Your task to perform on an android device: turn on improve location accuracy Image 0: 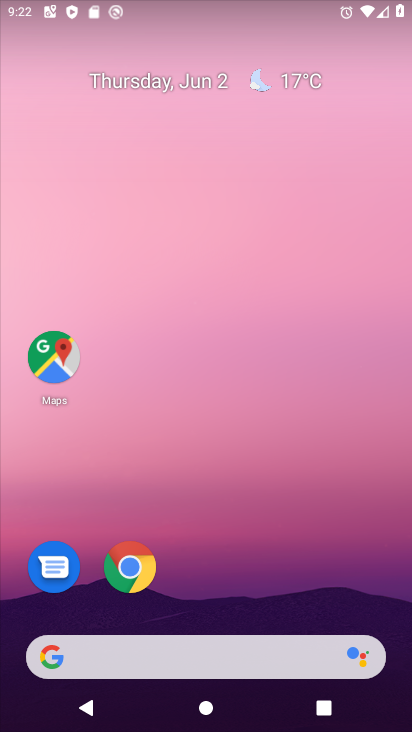
Step 0: drag from (217, 555) to (265, 44)
Your task to perform on an android device: turn on improve location accuracy Image 1: 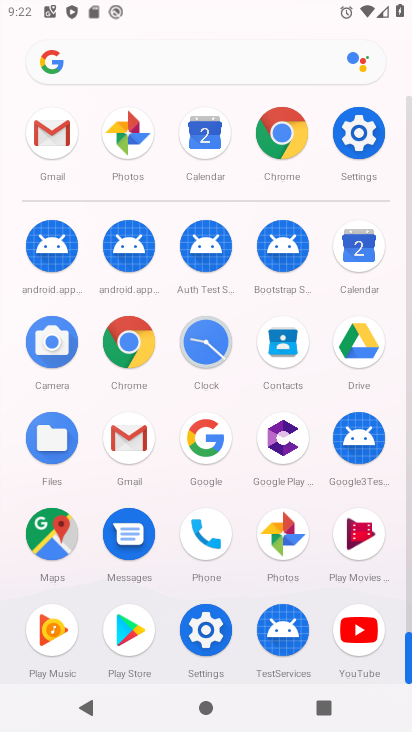
Step 1: click (203, 623)
Your task to perform on an android device: turn on improve location accuracy Image 2: 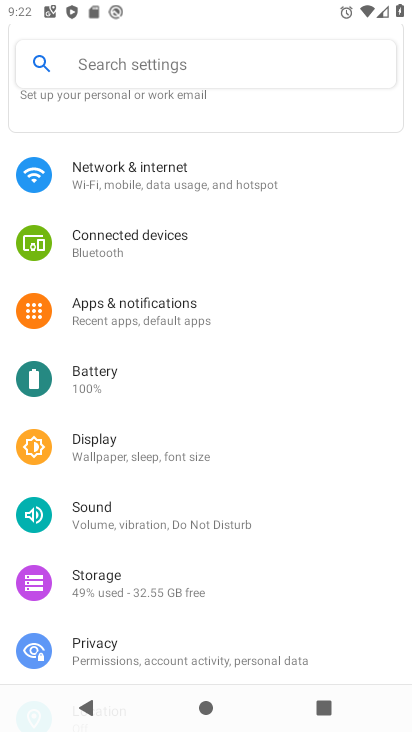
Step 2: drag from (140, 629) to (163, 382)
Your task to perform on an android device: turn on improve location accuracy Image 3: 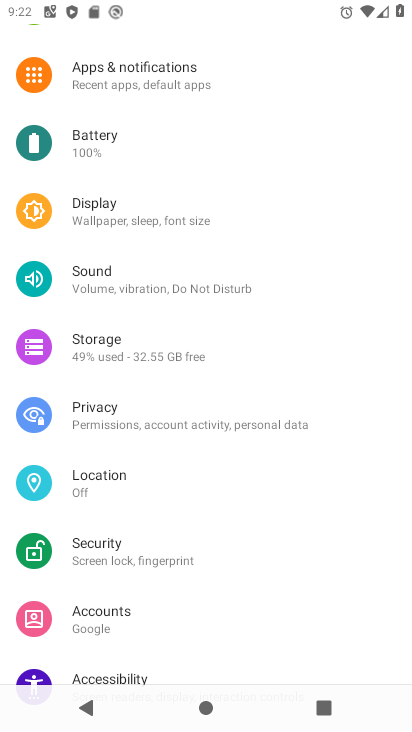
Step 3: click (103, 485)
Your task to perform on an android device: turn on improve location accuracy Image 4: 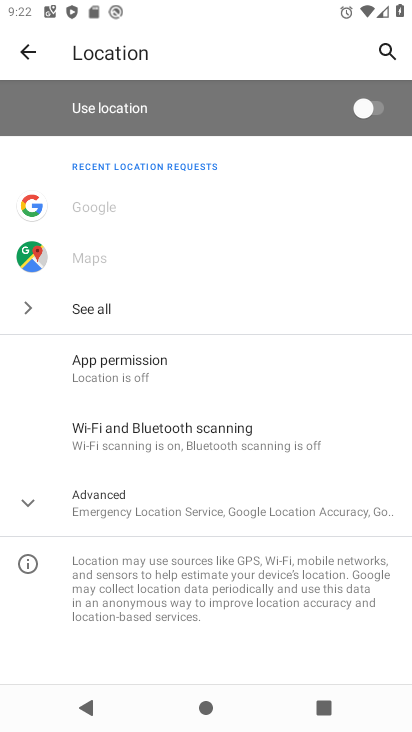
Step 4: click (167, 517)
Your task to perform on an android device: turn on improve location accuracy Image 5: 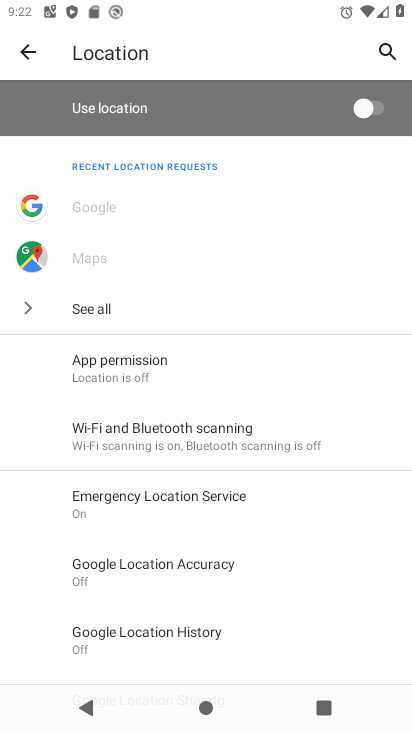
Step 5: click (215, 579)
Your task to perform on an android device: turn on improve location accuracy Image 6: 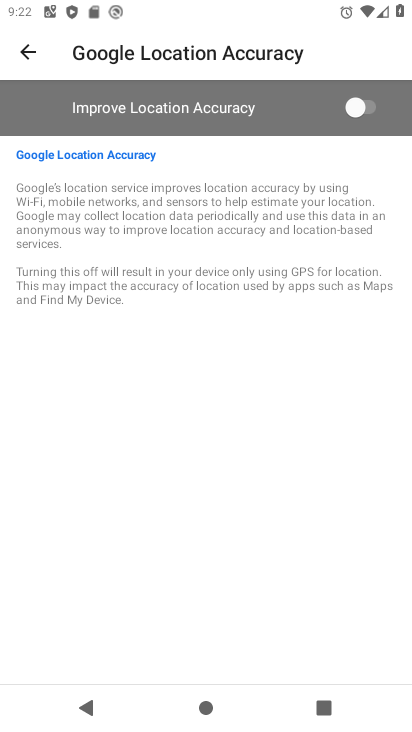
Step 6: click (362, 123)
Your task to perform on an android device: turn on improve location accuracy Image 7: 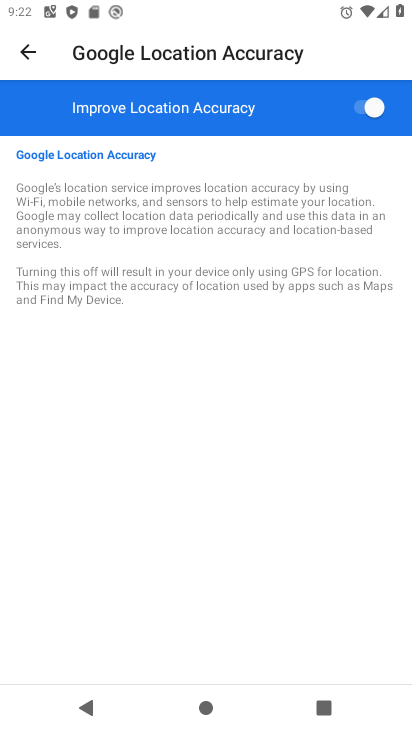
Step 7: task complete